Your task to perform on an android device: refresh tabs in the chrome app Image 0: 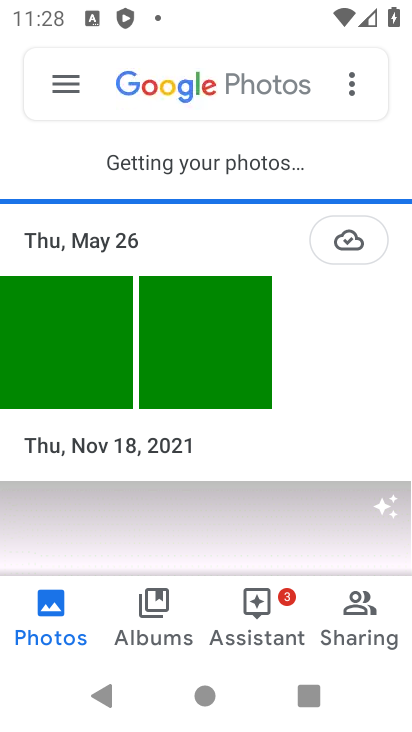
Step 0: press home button
Your task to perform on an android device: refresh tabs in the chrome app Image 1: 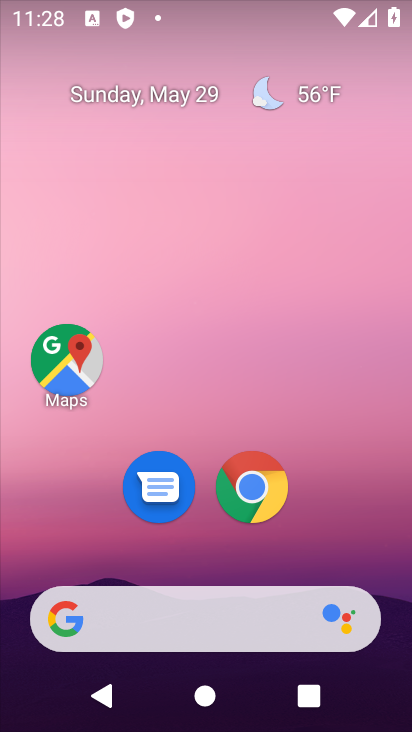
Step 1: drag from (169, 622) to (231, 116)
Your task to perform on an android device: refresh tabs in the chrome app Image 2: 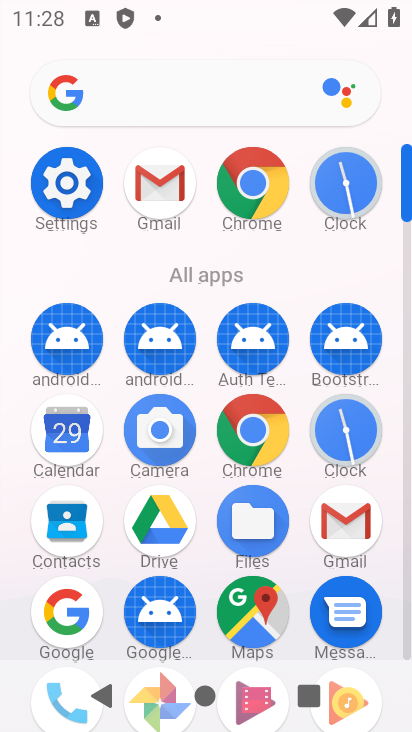
Step 2: click (250, 175)
Your task to perform on an android device: refresh tabs in the chrome app Image 3: 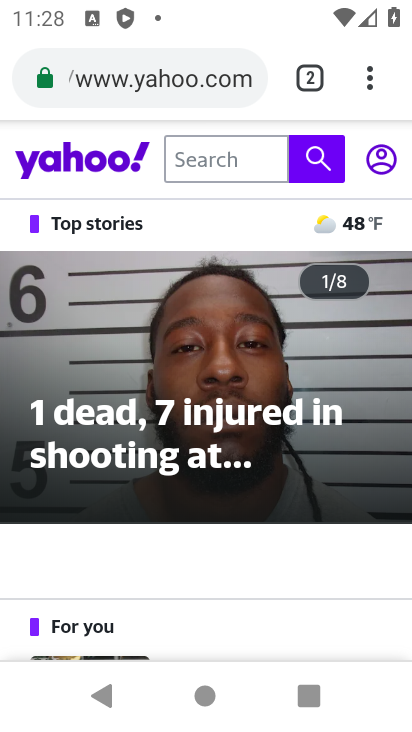
Step 3: click (369, 74)
Your task to perform on an android device: refresh tabs in the chrome app Image 4: 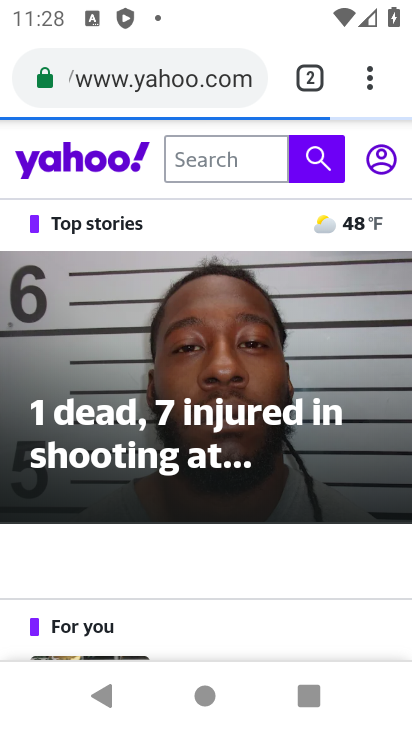
Step 4: task complete